Your task to perform on an android device: Go to privacy settings Image 0: 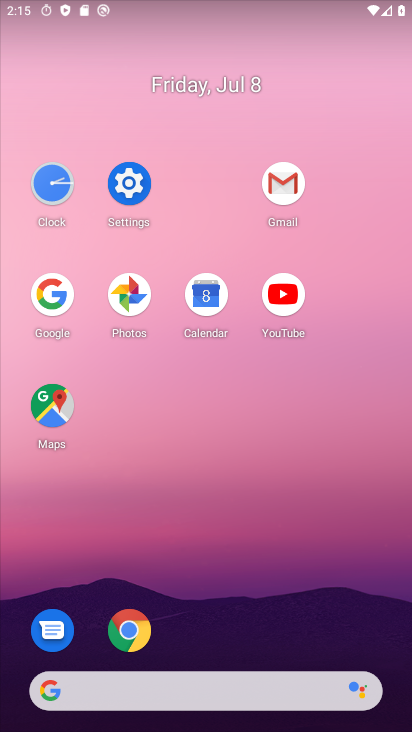
Step 0: click (129, 174)
Your task to perform on an android device: Go to privacy settings Image 1: 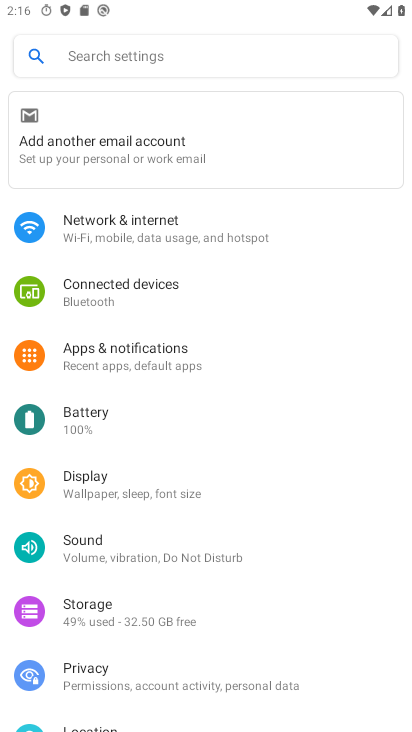
Step 1: click (133, 667)
Your task to perform on an android device: Go to privacy settings Image 2: 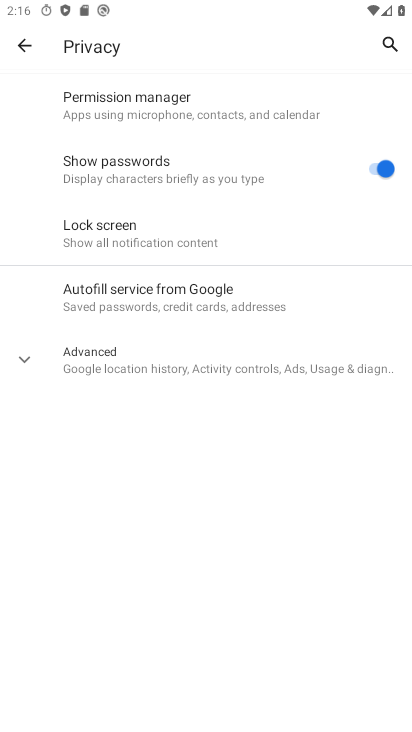
Step 2: task complete